Your task to perform on an android device: turn on airplane mode Image 0: 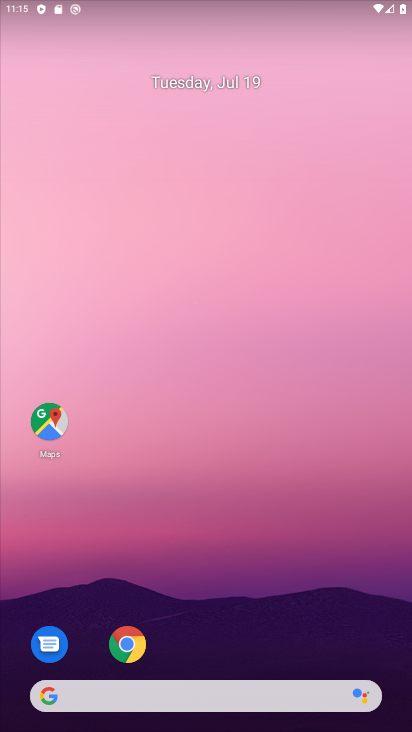
Step 0: drag from (35, 513) to (364, 29)
Your task to perform on an android device: turn on airplane mode Image 1: 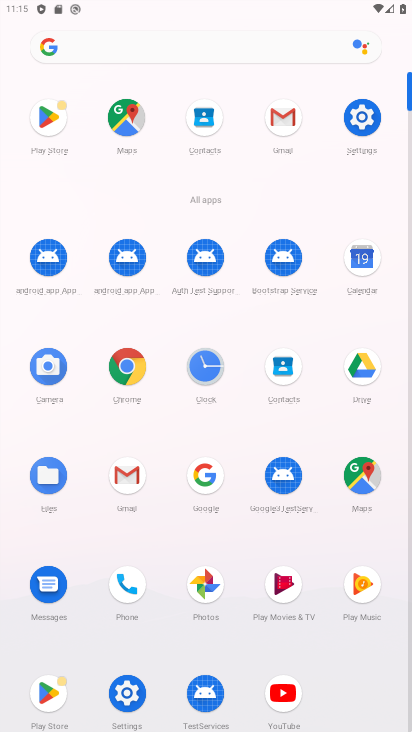
Step 1: click (118, 690)
Your task to perform on an android device: turn on airplane mode Image 2: 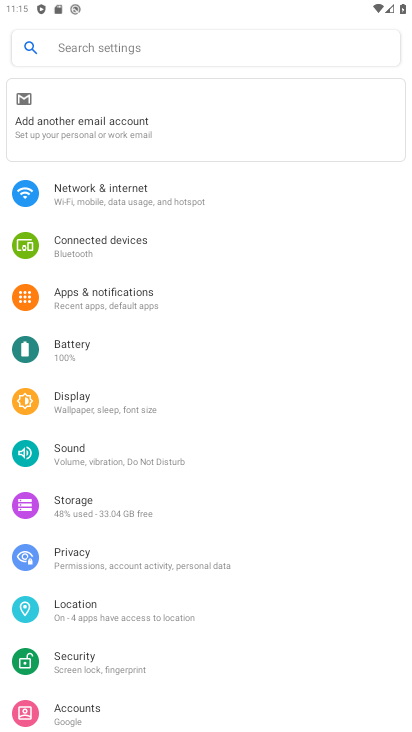
Step 2: click (116, 204)
Your task to perform on an android device: turn on airplane mode Image 3: 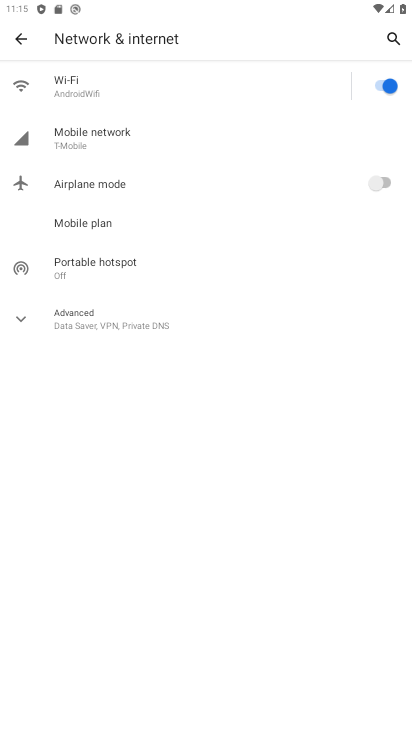
Step 3: click (395, 181)
Your task to perform on an android device: turn on airplane mode Image 4: 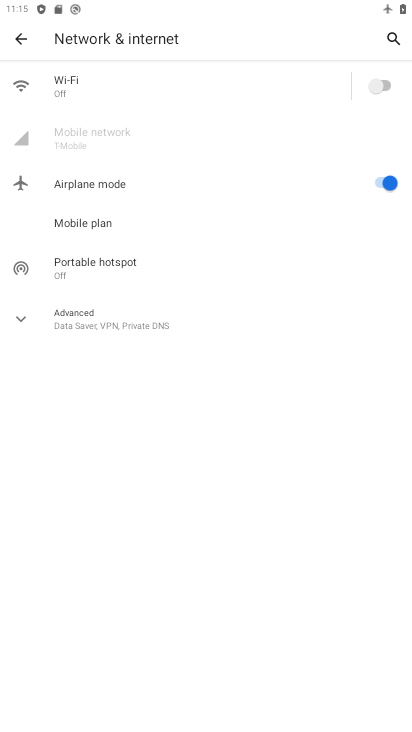
Step 4: task complete